Your task to perform on an android device: clear all cookies in the chrome app Image 0: 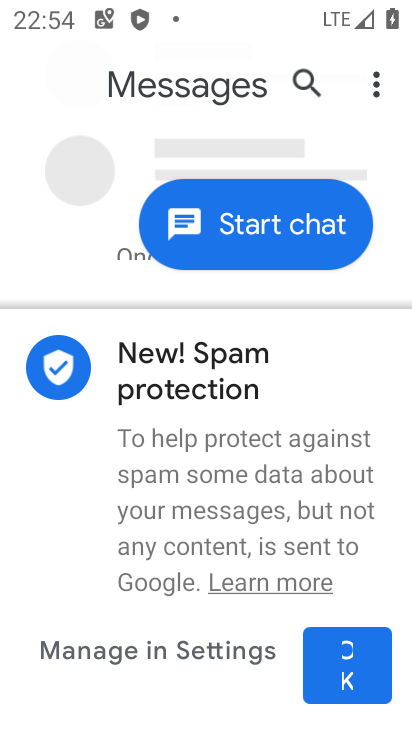
Step 0: press home button
Your task to perform on an android device: clear all cookies in the chrome app Image 1: 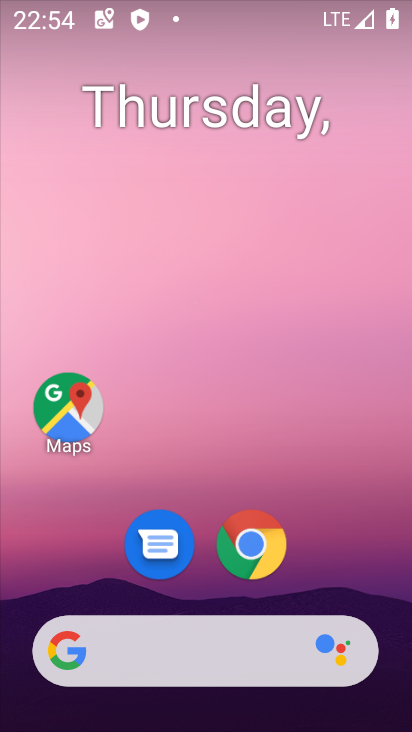
Step 1: click (243, 551)
Your task to perform on an android device: clear all cookies in the chrome app Image 2: 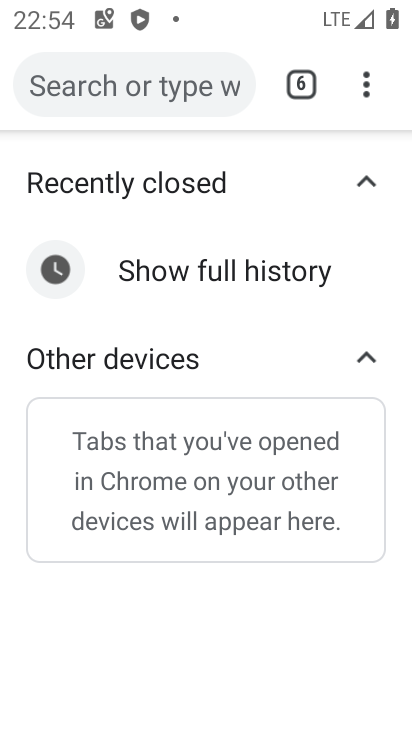
Step 2: click (363, 81)
Your task to perform on an android device: clear all cookies in the chrome app Image 3: 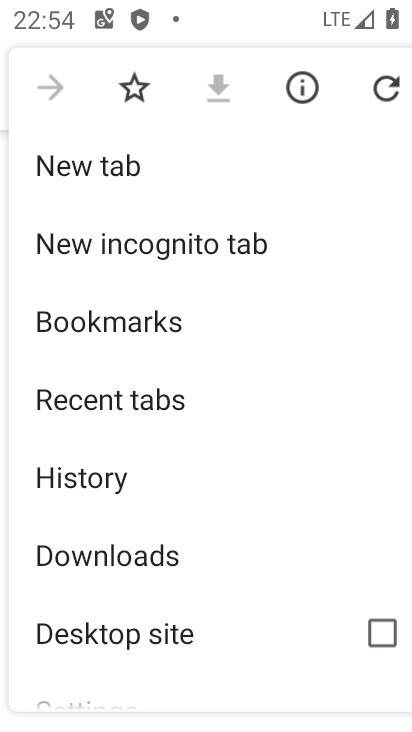
Step 3: click (94, 480)
Your task to perform on an android device: clear all cookies in the chrome app Image 4: 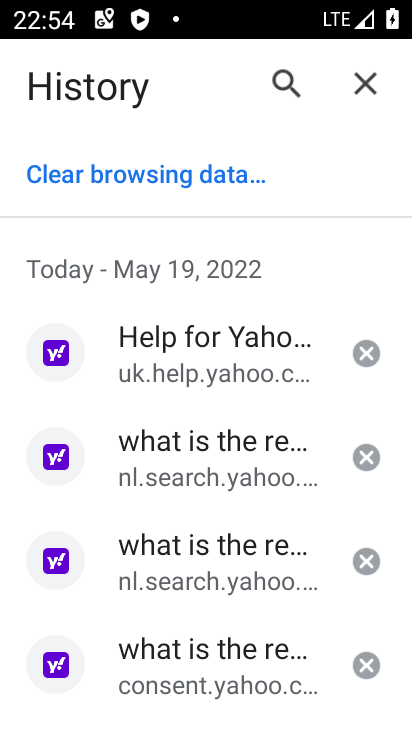
Step 4: click (114, 186)
Your task to perform on an android device: clear all cookies in the chrome app Image 5: 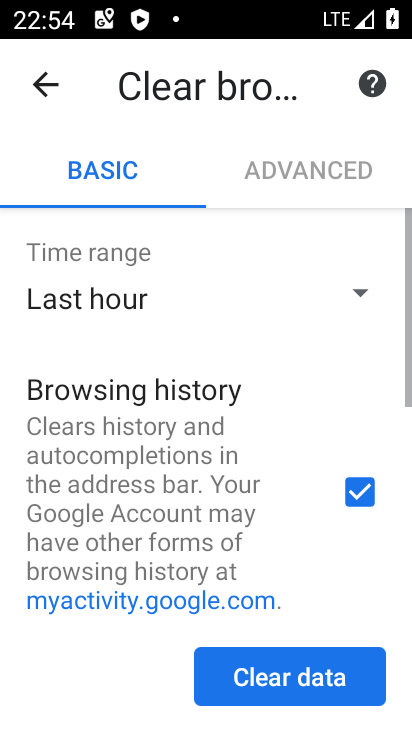
Step 5: drag from (191, 576) to (192, 417)
Your task to perform on an android device: clear all cookies in the chrome app Image 6: 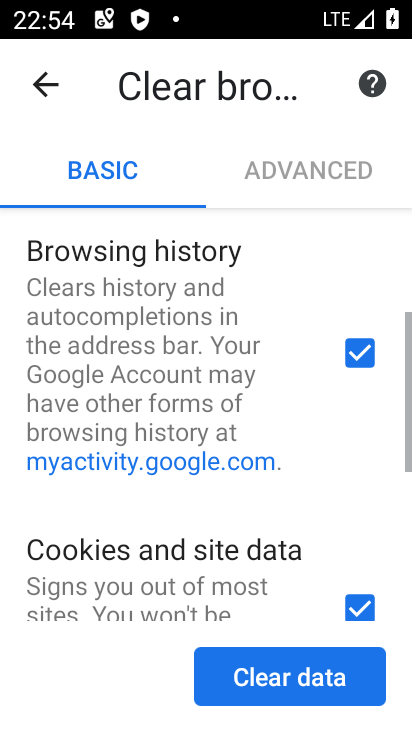
Step 6: drag from (199, 381) to (205, 324)
Your task to perform on an android device: clear all cookies in the chrome app Image 7: 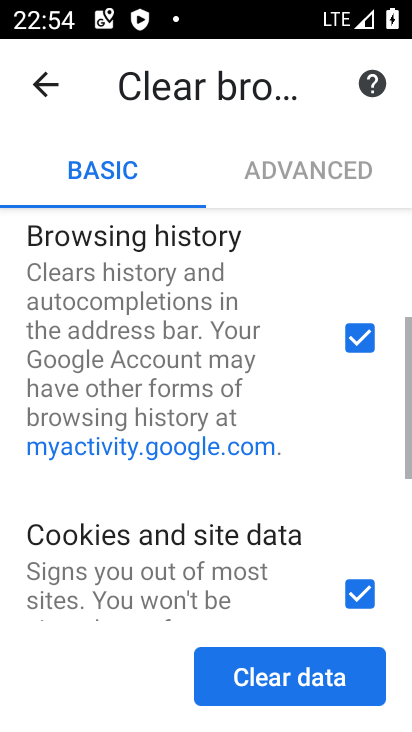
Step 7: click (203, 269)
Your task to perform on an android device: clear all cookies in the chrome app Image 8: 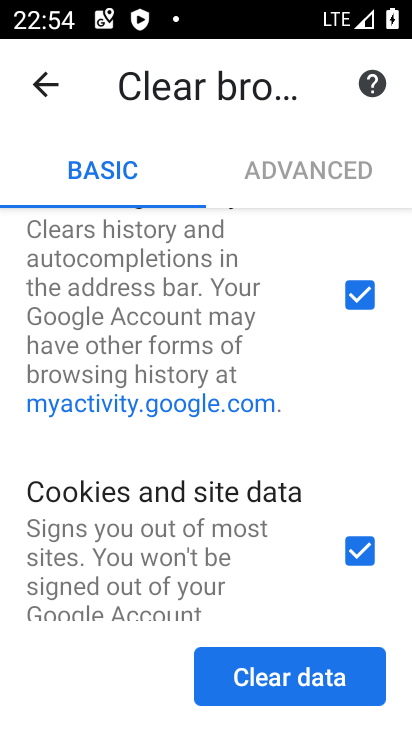
Step 8: click (235, 664)
Your task to perform on an android device: clear all cookies in the chrome app Image 9: 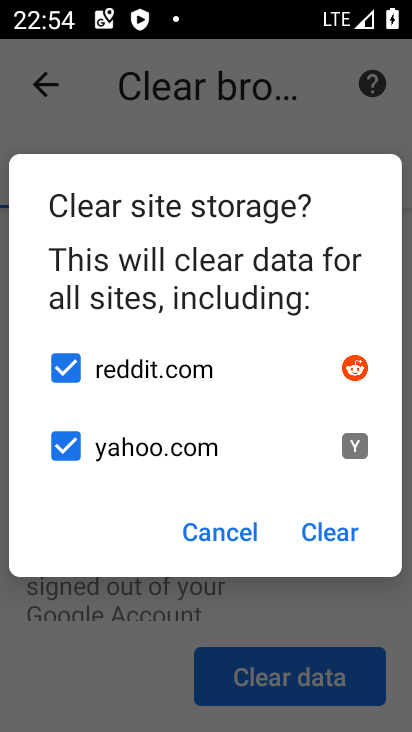
Step 9: click (343, 535)
Your task to perform on an android device: clear all cookies in the chrome app Image 10: 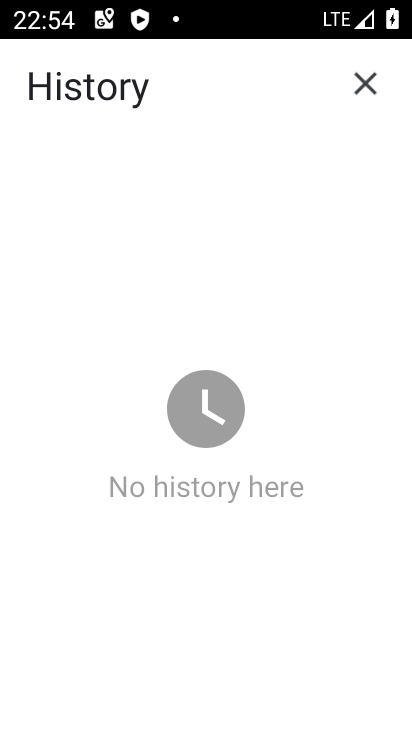
Step 10: task complete